Your task to perform on an android device: Clear the shopping cart on walmart.com. Search for macbook air on walmart.com, select the first entry, add it to the cart, then select checkout. Image 0: 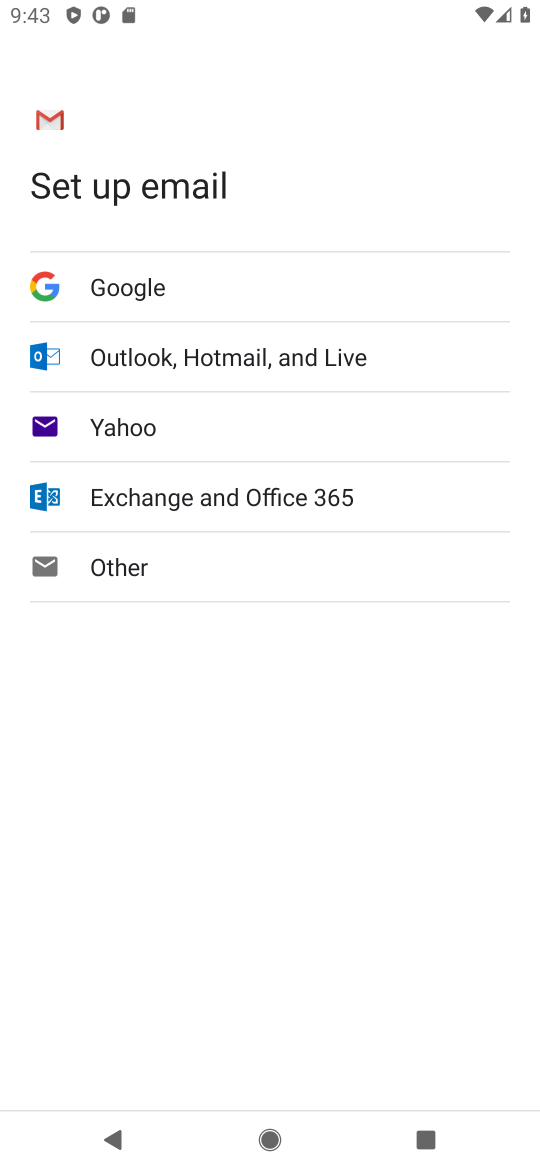
Step 0: press home button
Your task to perform on an android device: Clear the shopping cart on walmart.com. Search for macbook air on walmart.com, select the first entry, add it to the cart, then select checkout. Image 1: 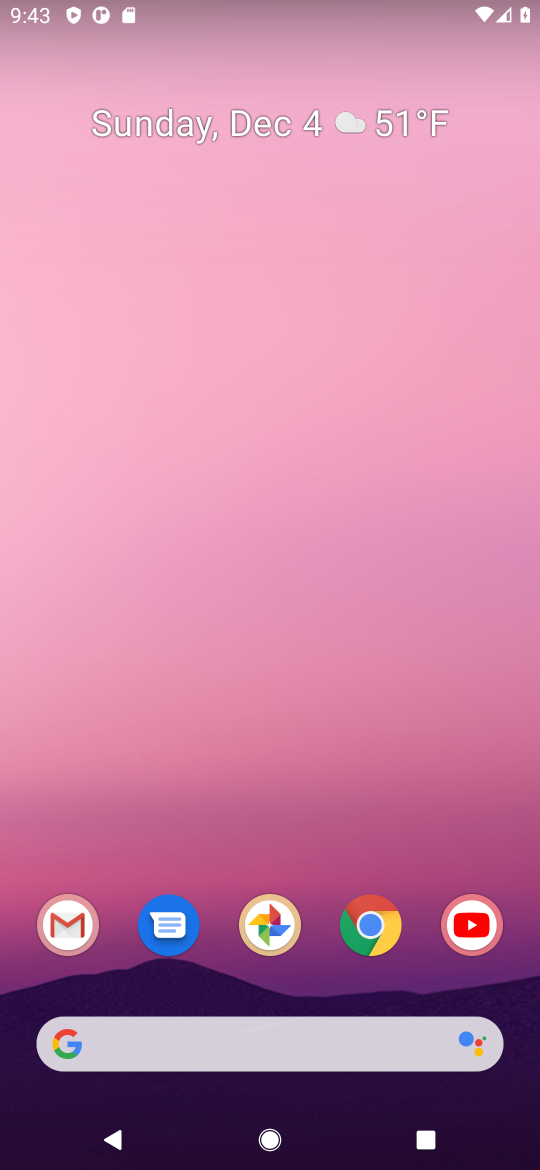
Step 1: drag from (238, 764) to (282, 346)
Your task to perform on an android device: Clear the shopping cart on walmart.com. Search for macbook air on walmart.com, select the first entry, add it to the cart, then select checkout. Image 2: 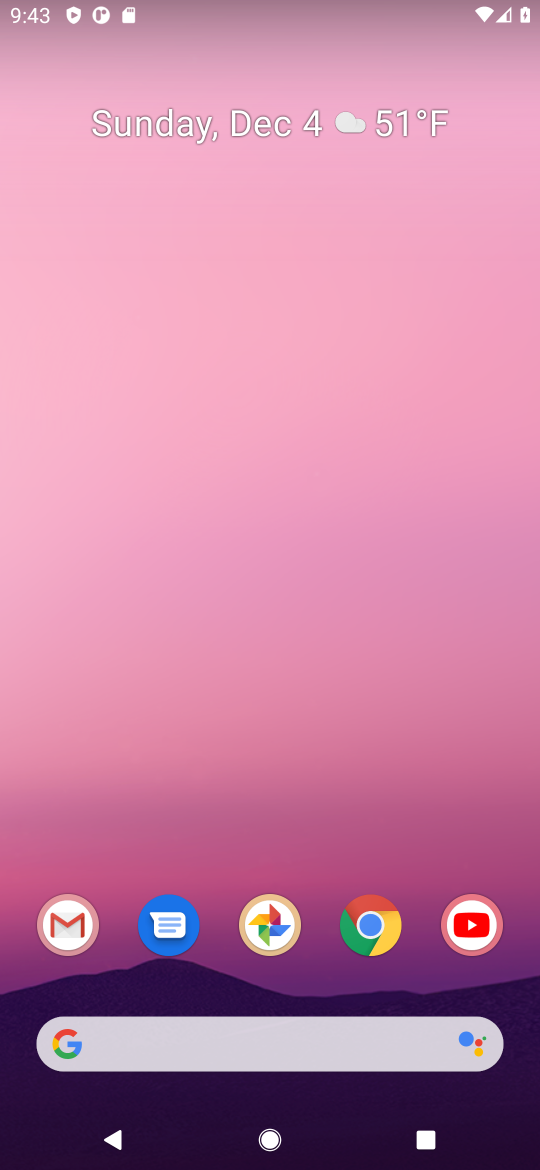
Step 2: drag from (319, 1025) to (413, 340)
Your task to perform on an android device: Clear the shopping cart on walmart.com. Search for macbook air on walmart.com, select the first entry, add it to the cart, then select checkout. Image 3: 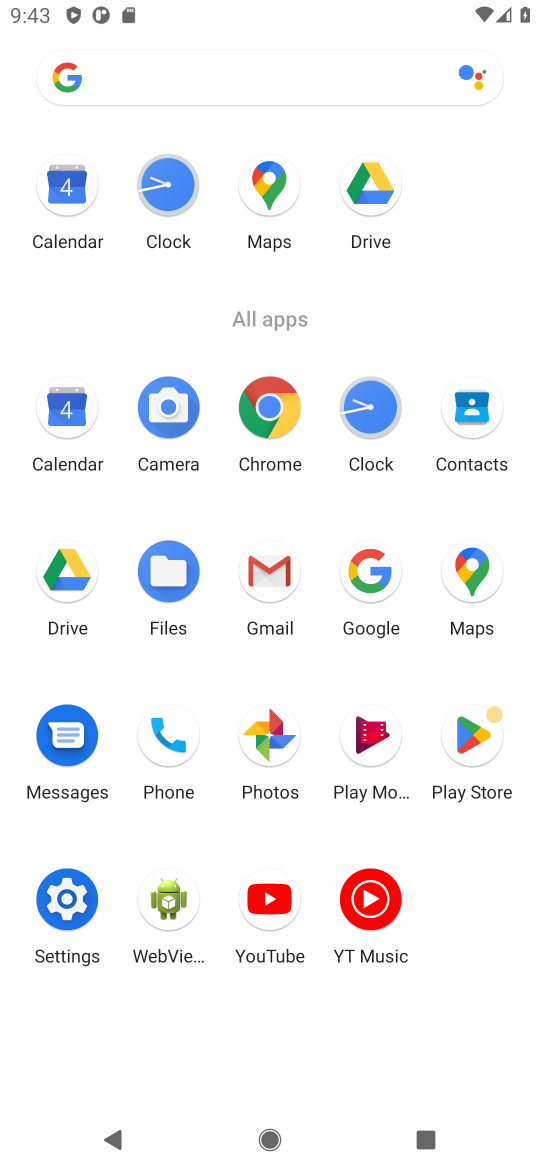
Step 3: click (359, 571)
Your task to perform on an android device: Clear the shopping cart on walmart.com. Search for macbook air on walmart.com, select the first entry, add it to the cart, then select checkout. Image 4: 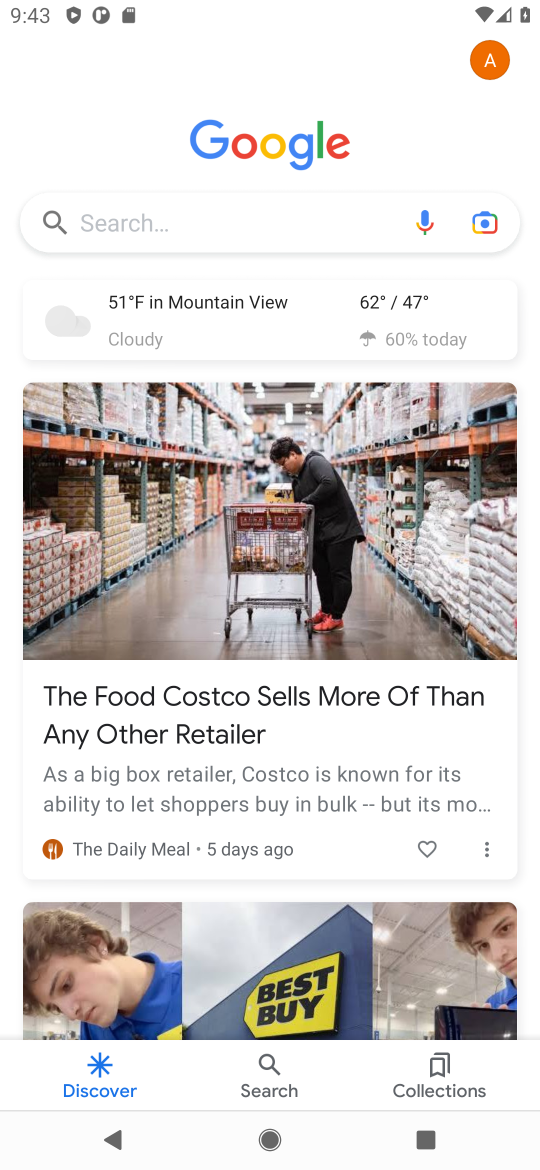
Step 4: click (154, 237)
Your task to perform on an android device: Clear the shopping cart on walmart.com. Search for macbook air on walmart.com, select the first entry, add it to the cart, then select checkout. Image 5: 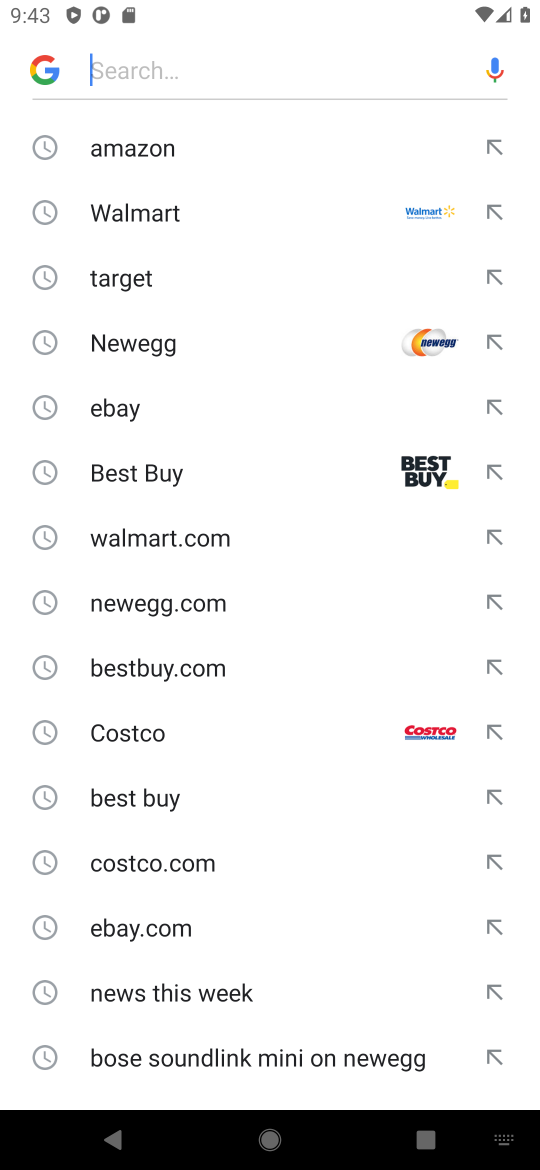
Step 5: click (157, 221)
Your task to perform on an android device: Clear the shopping cart on walmart.com. Search for macbook air on walmart.com, select the first entry, add it to the cart, then select checkout. Image 6: 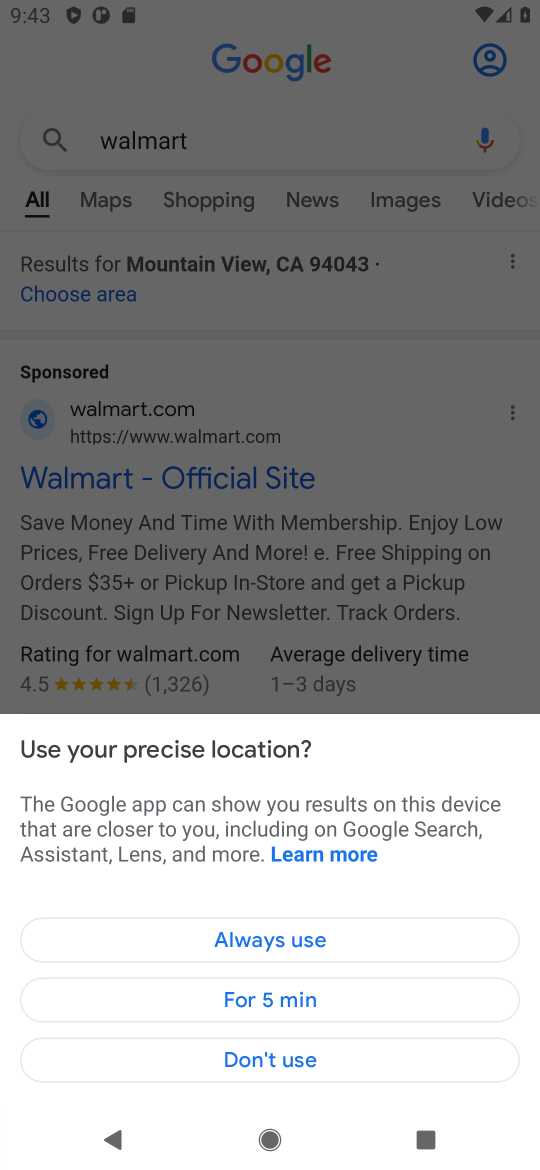
Step 6: click (78, 910)
Your task to perform on an android device: Clear the shopping cart on walmart.com. Search for macbook air on walmart.com, select the first entry, add it to the cart, then select checkout. Image 7: 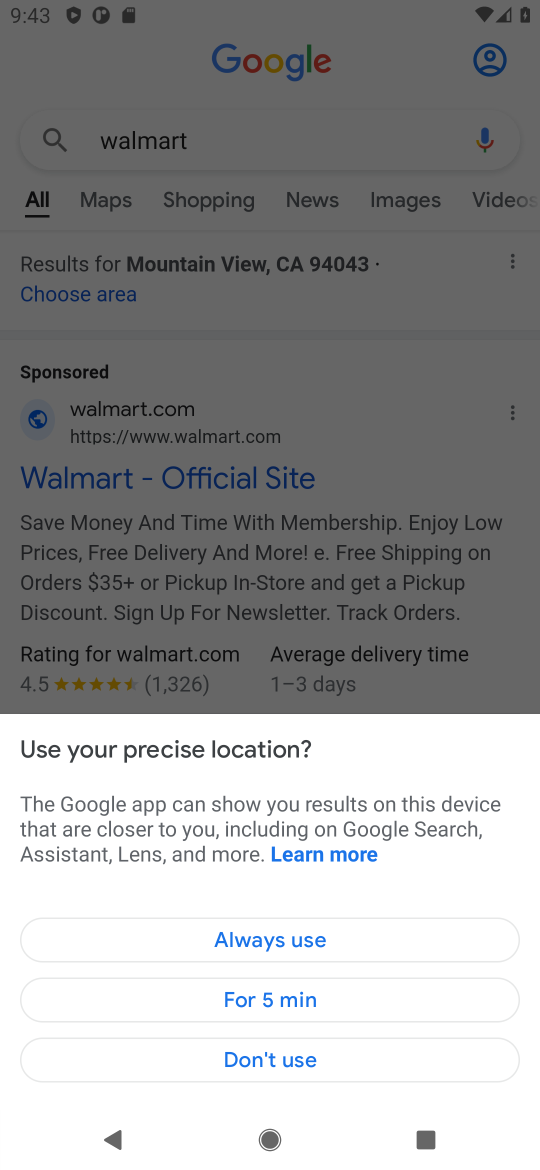
Step 7: click (274, 946)
Your task to perform on an android device: Clear the shopping cart on walmart.com. Search for macbook air on walmart.com, select the first entry, add it to the cart, then select checkout. Image 8: 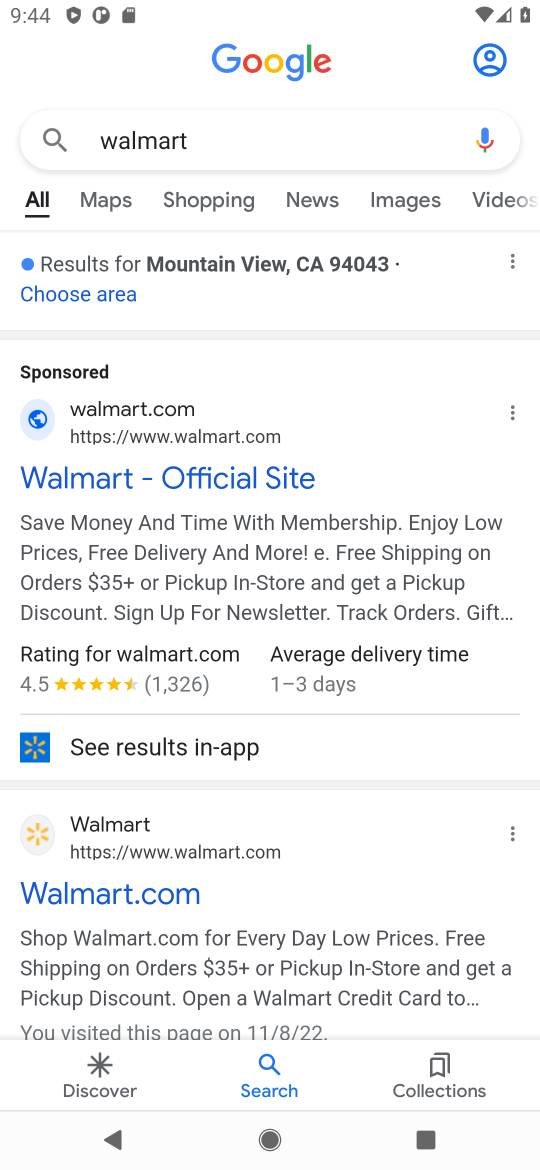
Step 8: click (130, 895)
Your task to perform on an android device: Clear the shopping cart on walmart.com. Search for macbook air on walmart.com, select the first entry, add it to the cart, then select checkout. Image 9: 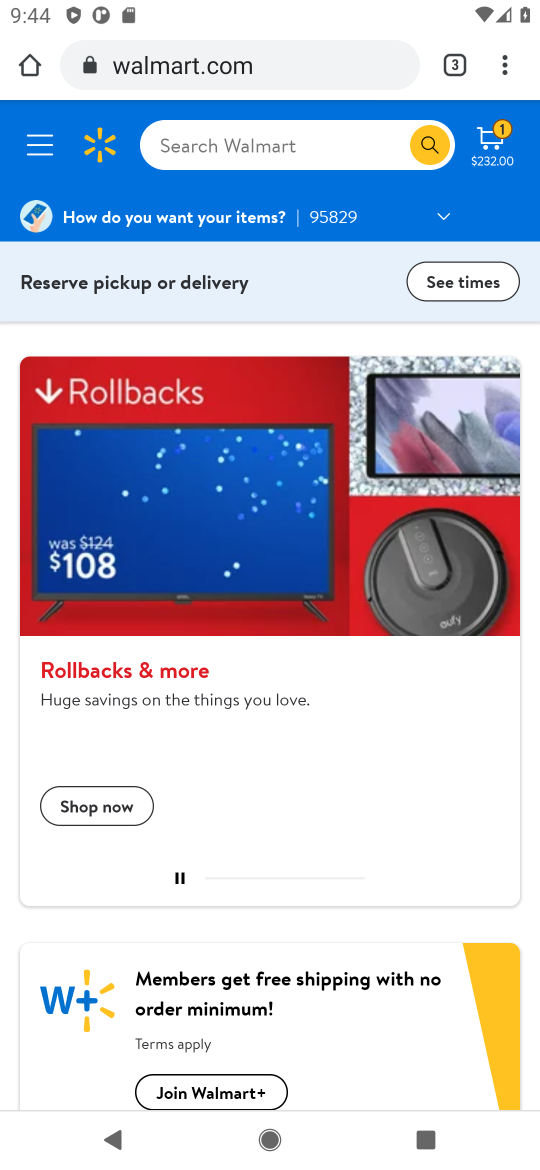
Step 9: click (264, 152)
Your task to perform on an android device: Clear the shopping cart on walmart.com. Search for macbook air on walmart.com, select the first entry, add it to the cart, then select checkout. Image 10: 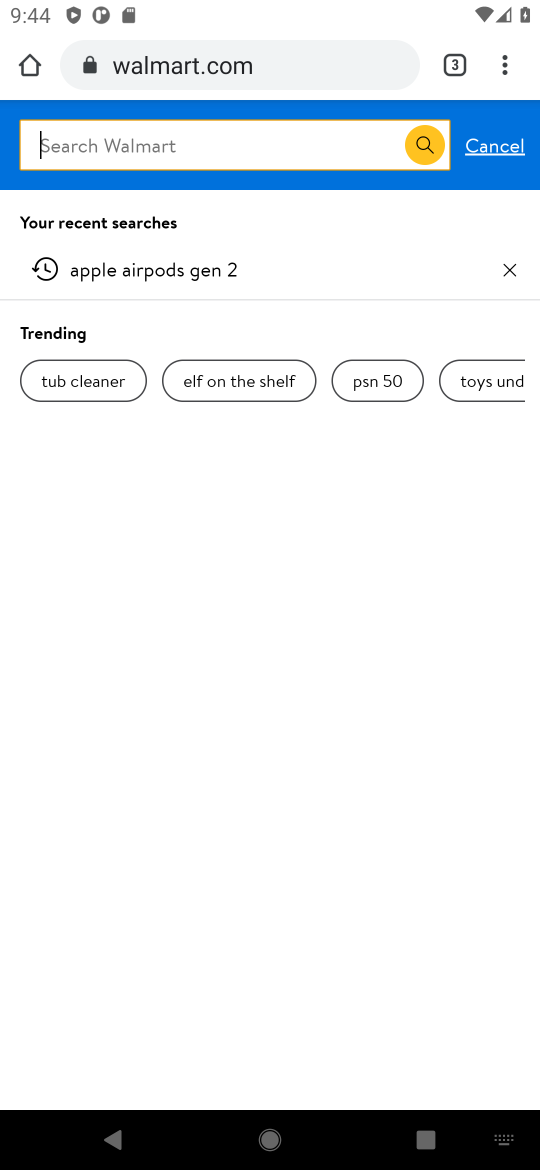
Step 10: click (490, 147)
Your task to perform on an android device: Clear the shopping cart on walmart.com. Search for macbook air on walmart.com, select the first entry, add it to the cart, then select checkout. Image 11: 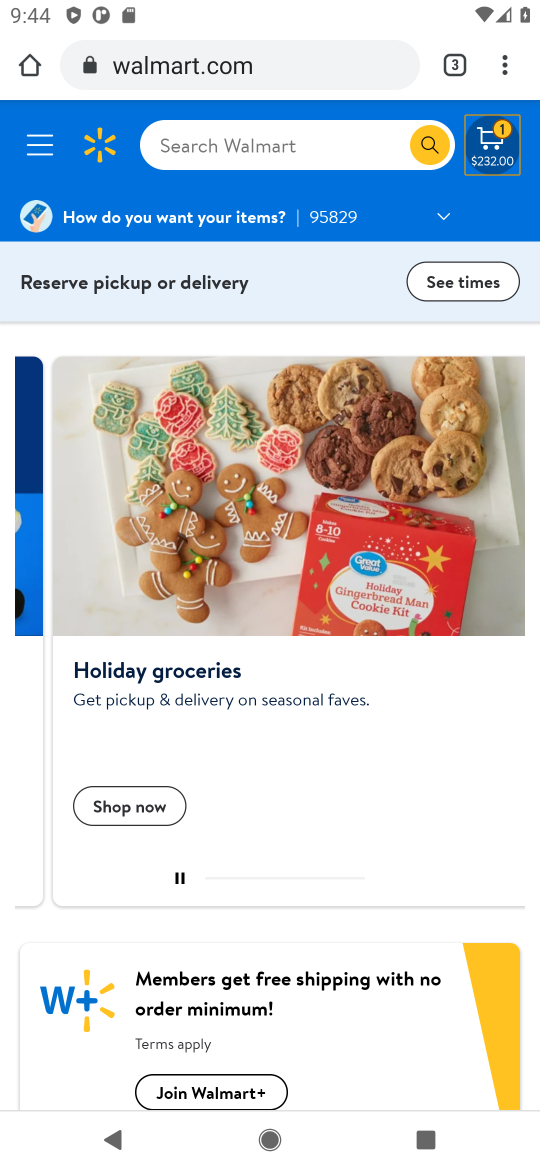
Step 11: click (508, 147)
Your task to perform on an android device: Clear the shopping cart on walmart.com. Search for macbook air on walmart.com, select the first entry, add it to the cart, then select checkout. Image 12: 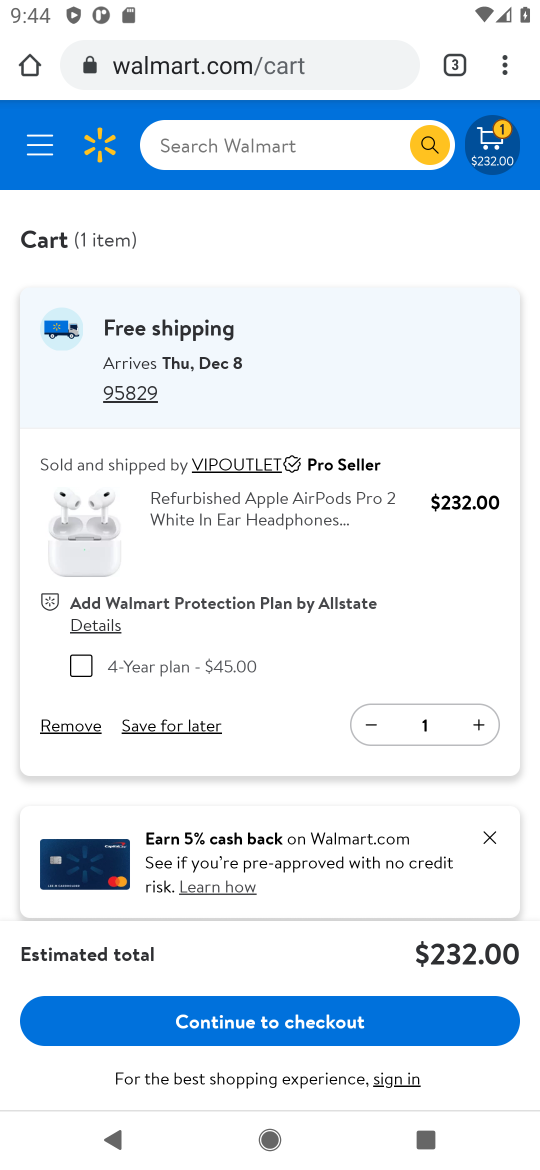
Step 12: click (88, 735)
Your task to perform on an android device: Clear the shopping cart on walmart.com. Search for macbook air on walmart.com, select the first entry, add it to the cart, then select checkout. Image 13: 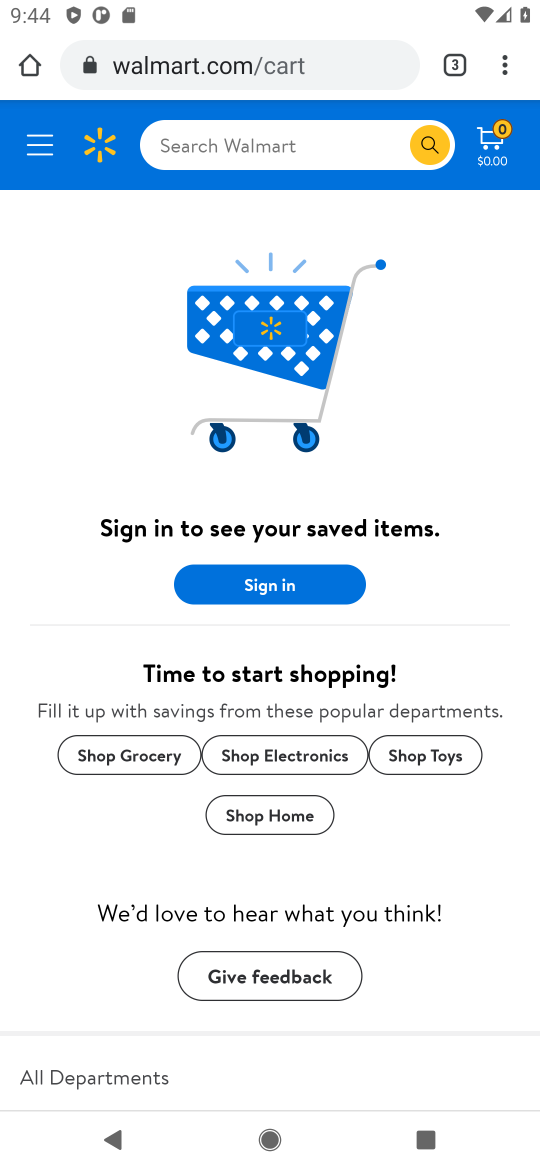
Step 13: click (322, 145)
Your task to perform on an android device: Clear the shopping cart on walmart.com. Search for macbook air on walmart.com, select the first entry, add it to the cart, then select checkout. Image 14: 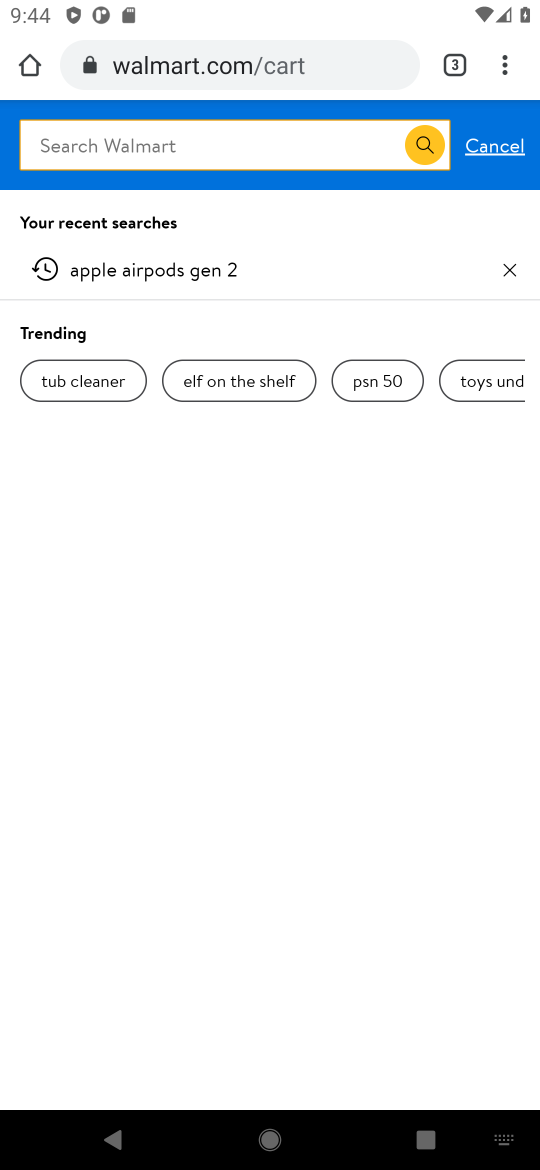
Step 14: type "macbook air"
Your task to perform on an android device: Clear the shopping cart on walmart.com. Search for macbook air on walmart.com, select the first entry, add it to the cart, then select checkout. Image 15: 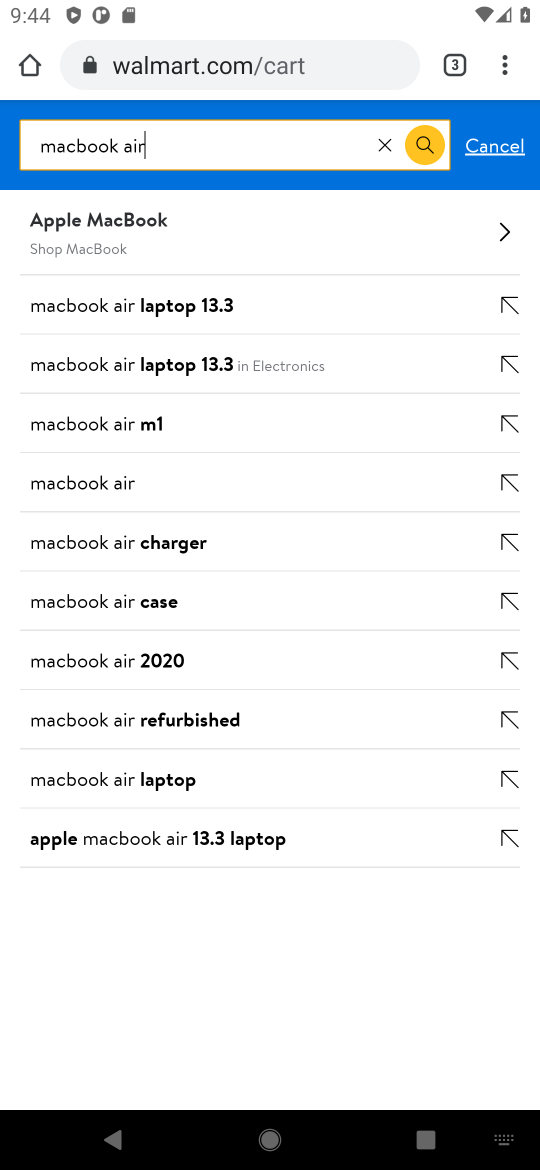
Step 15: click (110, 224)
Your task to perform on an android device: Clear the shopping cart on walmart.com. Search for macbook air on walmart.com, select the first entry, add it to the cart, then select checkout. Image 16: 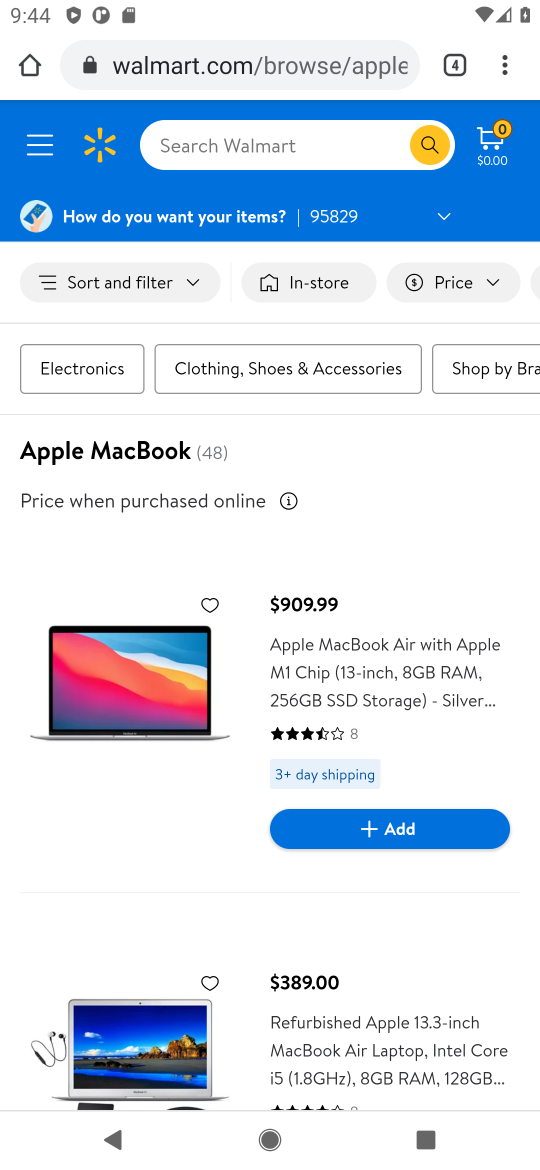
Step 16: click (395, 815)
Your task to perform on an android device: Clear the shopping cart on walmart.com. Search for macbook air on walmart.com, select the first entry, add it to the cart, then select checkout. Image 17: 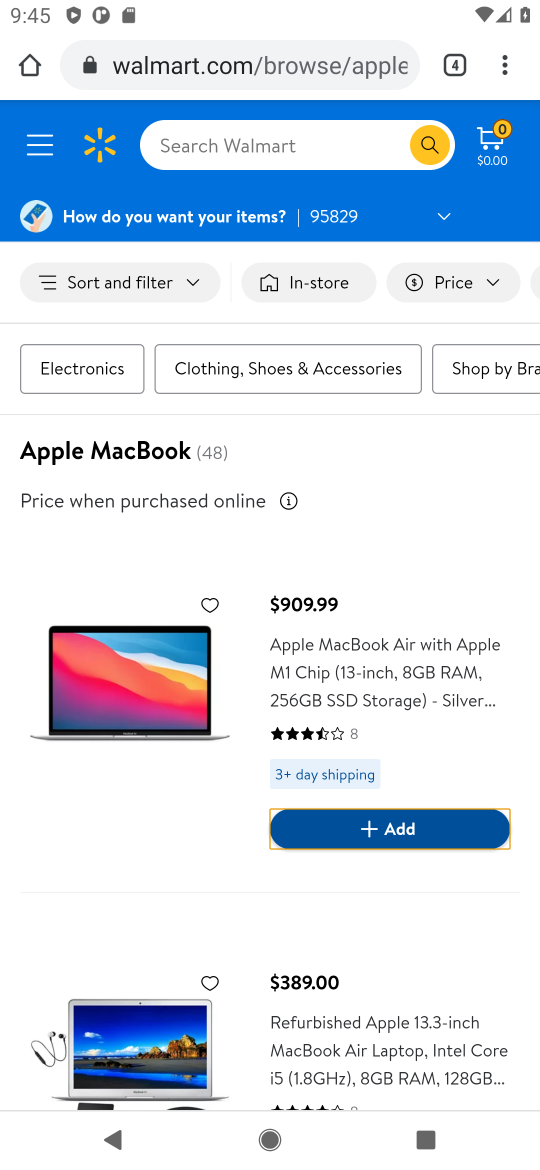
Step 17: click (395, 839)
Your task to perform on an android device: Clear the shopping cart on walmart.com. Search for macbook air on walmart.com, select the first entry, add it to the cart, then select checkout. Image 18: 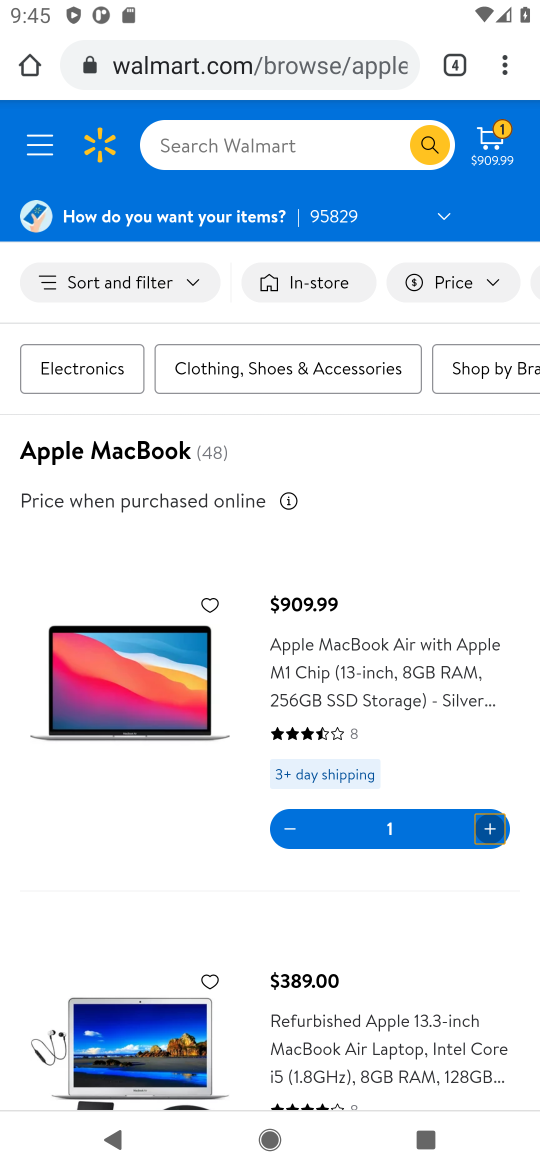
Step 18: click (492, 146)
Your task to perform on an android device: Clear the shopping cart on walmart.com. Search for macbook air on walmart.com, select the first entry, add it to the cart, then select checkout. Image 19: 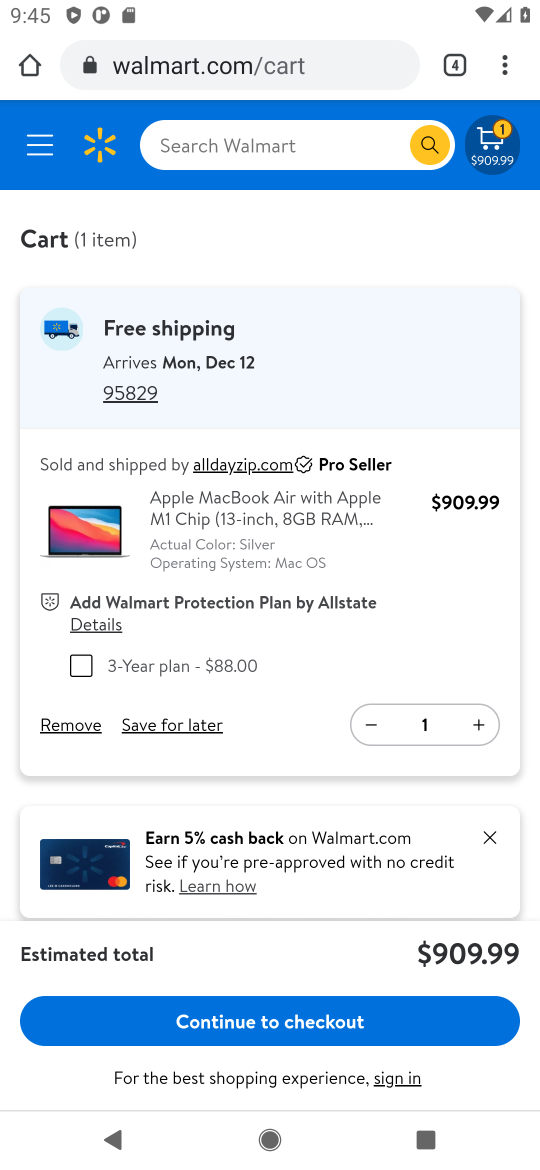
Step 19: click (211, 1017)
Your task to perform on an android device: Clear the shopping cart on walmart.com. Search for macbook air on walmart.com, select the first entry, add it to the cart, then select checkout. Image 20: 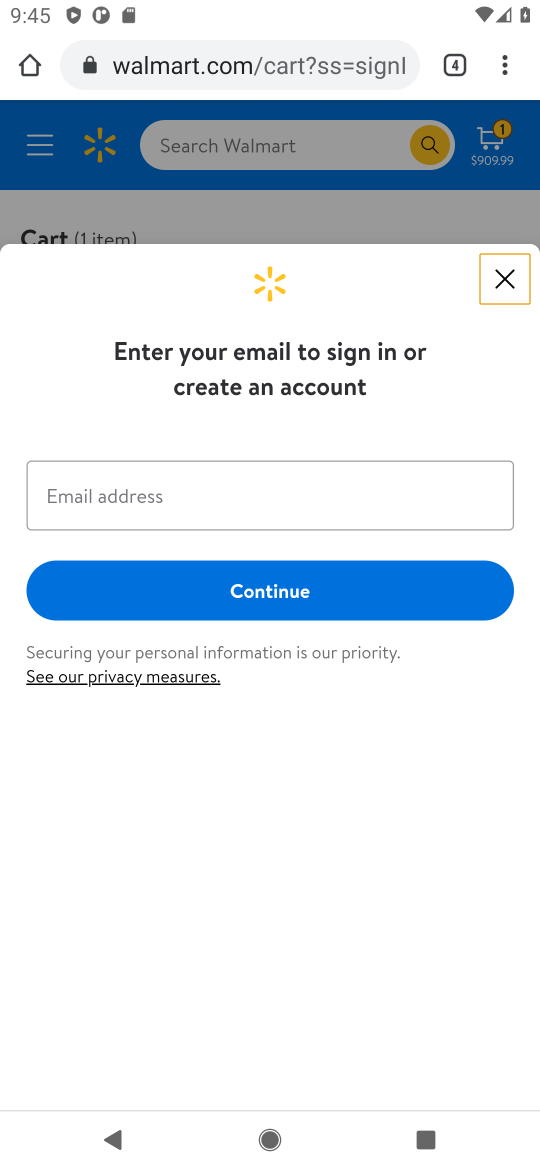
Step 20: task complete